Your task to perform on an android device: turn off javascript in the chrome app Image 0: 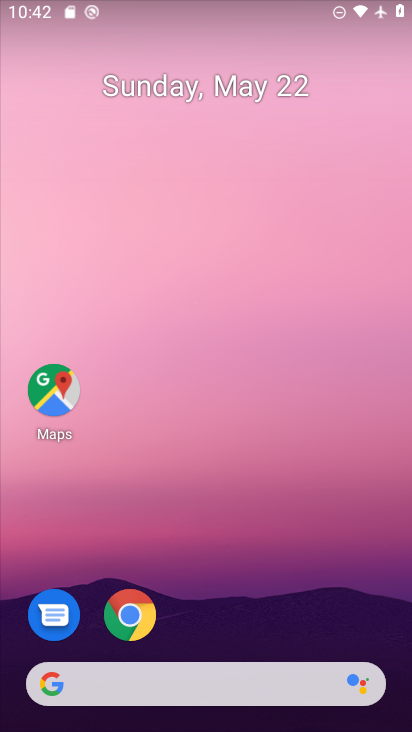
Step 0: click (144, 623)
Your task to perform on an android device: turn off javascript in the chrome app Image 1: 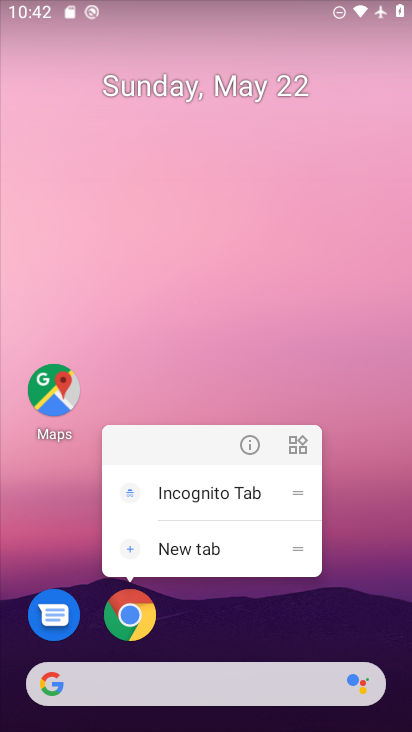
Step 1: click (108, 609)
Your task to perform on an android device: turn off javascript in the chrome app Image 2: 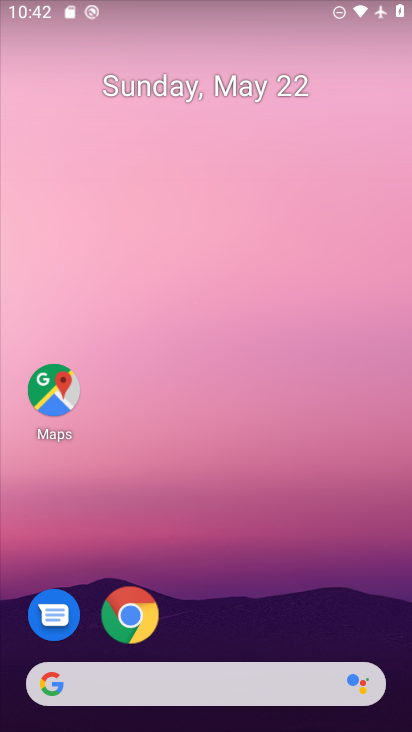
Step 2: click (121, 619)
Your task to perform on an android device: turn off javascript in the chrome app Image 3: 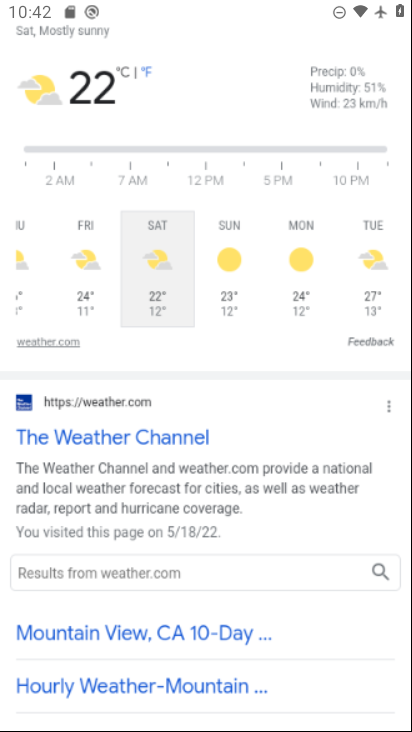
Step 3: click (124, 618)
Your task to perform on an android device: turn off javascript in the chrome app Image 4: 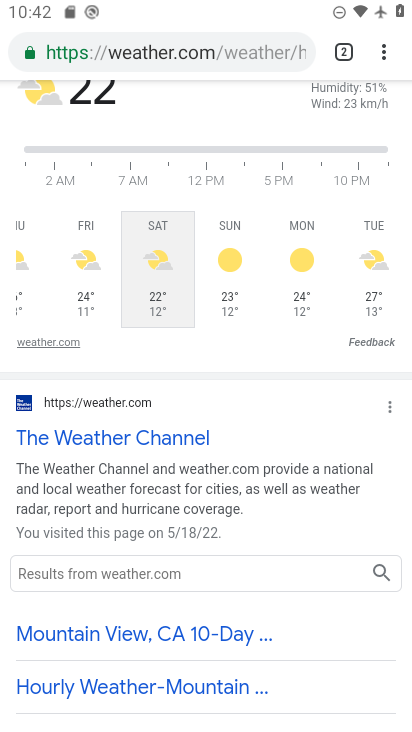
Step 4: drag from (384, 51) to (216, 581)
Your task to perform on an android device: turn off javascript in the chrome app Image 5: 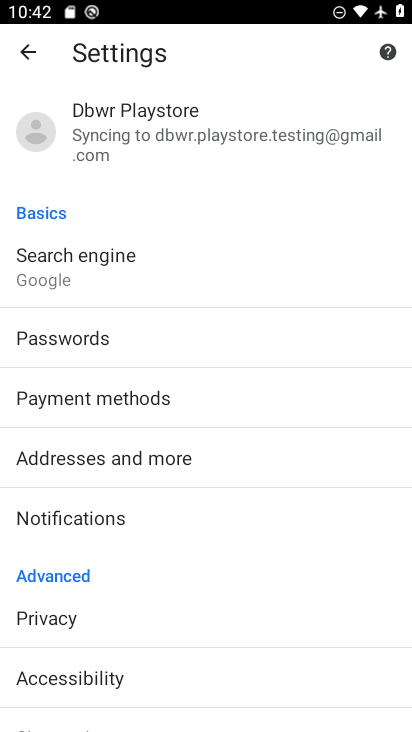
Step 5: drag from (237, 592) to (265, 147)
Your task to perform on an android device: turn off javascript in the chrome app Image 6: 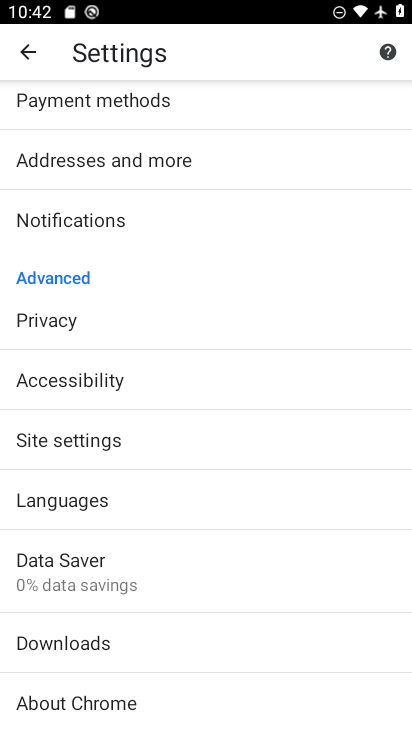
Step 6: drag from (136, 585) to (175, 342)
Your task to perform on an android device: turn off javascript in the chrome app Image 7: 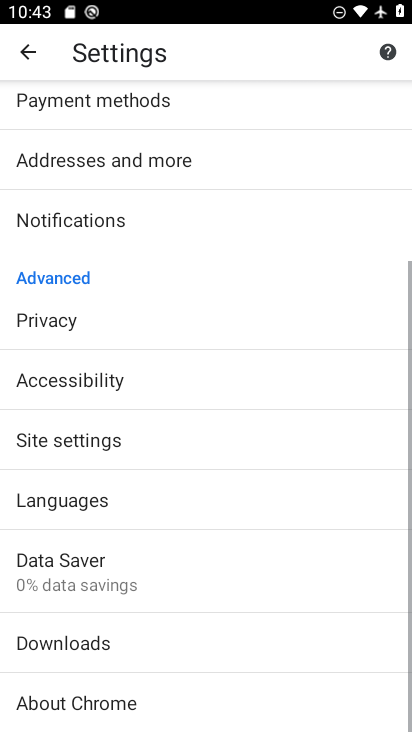
Step 7: click (78, 428)
Your task to perform on an android device: turn off javascript in the chrome app Image 8: 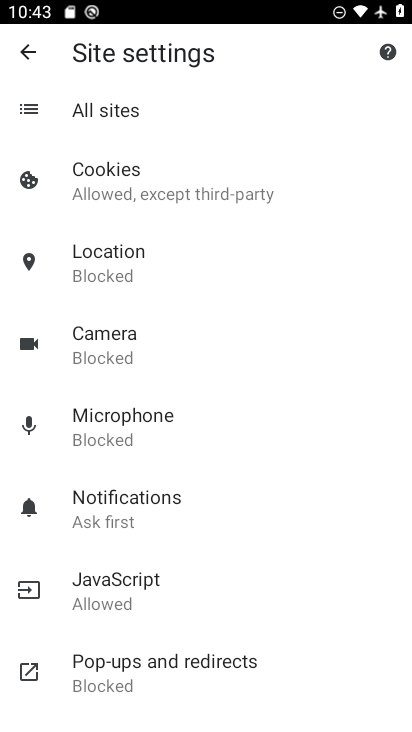
Step 8: click (141, 600)
Your task to perform on an android device: turn off javascript in the chrome app Image 9: 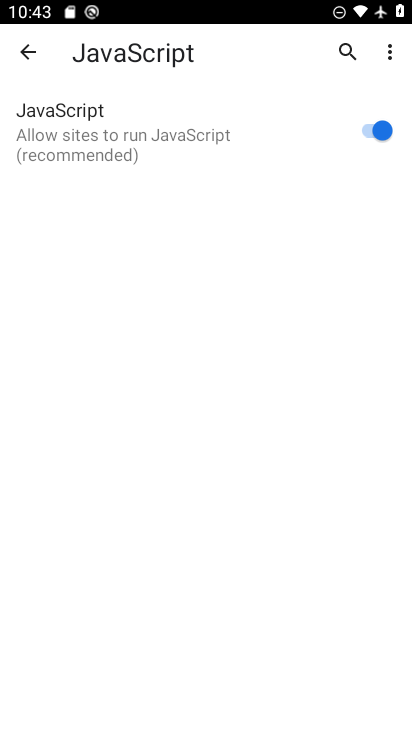
Step 9: click (382, 133)
Your task to perform on an android device: turn off javascript in the chrome app Image 10: 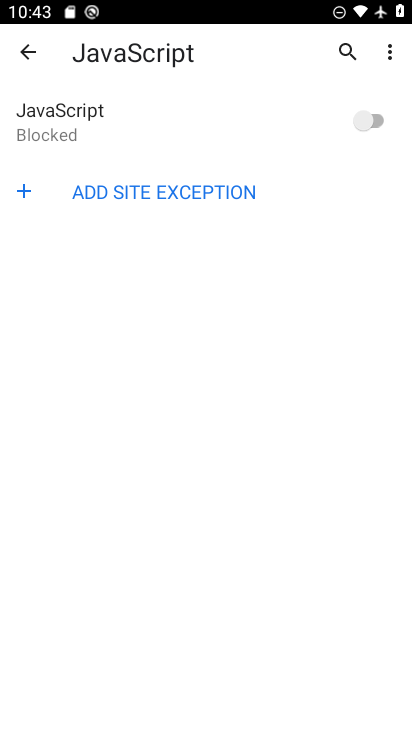
Step 10: task complete